Your task to perform on an android device: Find coffee shops on Maps Image 0: 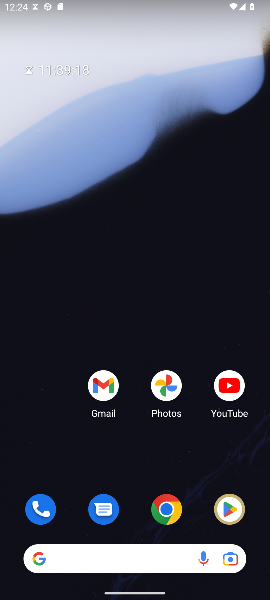
Step 0: press home button
Your task to perform on an android device: Find coffee shops on Maps Image 1: 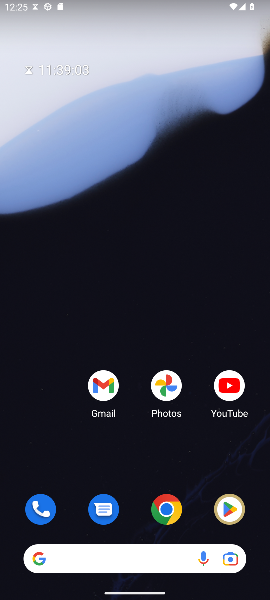
Step 1: drag from (137, 529) to (163, 104)
Your task to perform on an android device: Find coffee shops on Maps Image 2: 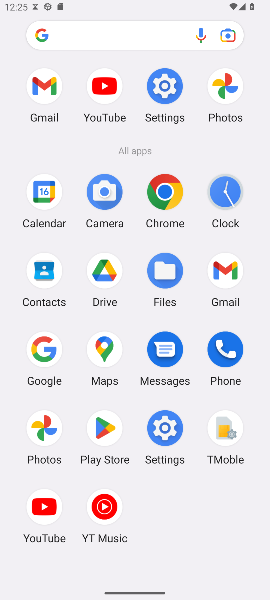
Step 2: click (107, 356)
Your task to perform on an android device: Find coffee shops on Maps Image 3: 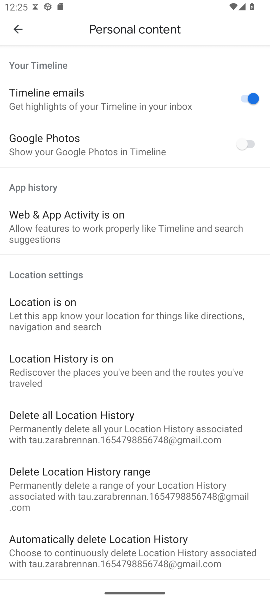
Step 3: press back button
Your task to perform on an android device: Find coffee shops on Maps Image 4: 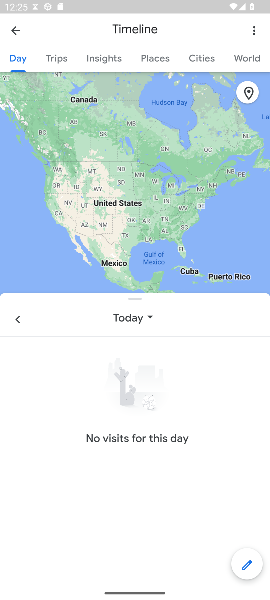
Step 4: press back button
Your task to perform on an android device: Find coffee shops on Maps Image 5: 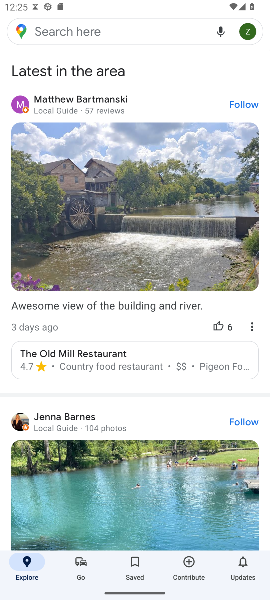
Step 5: press back button
Your task to perform on an android device: Find coffee shops on Maps Image 6: 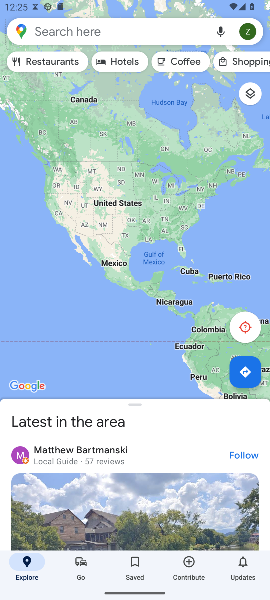
Step 6: click (100, 34)
Your task to perform on an android device: Find coffee shops on Maps Image 7: 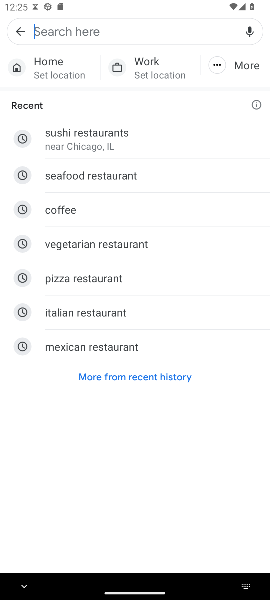
Step 7: type "coffee shops "
Your task to perform on an android device: Find coffee shops on Maps Image 8: 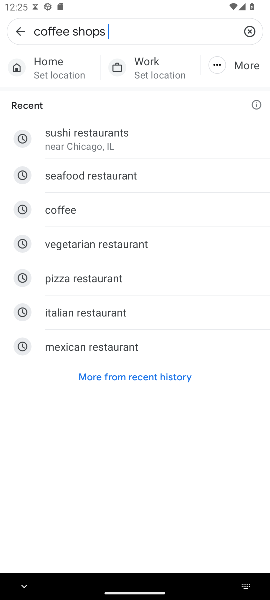
Step 8: press enter
Your task to perform on an android device: Find coffee shops on Maps Image 9: 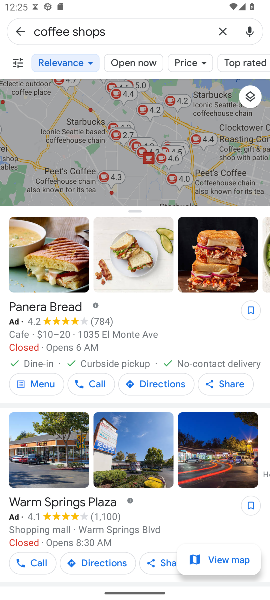
Step 9: task complete